Your task to perform on an android device: Go to eBay Image 0: 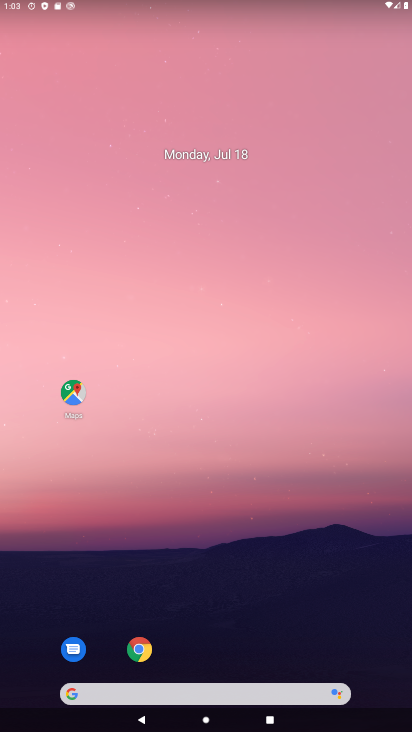
Step 0: drag from (202, 671) to (261, 50)
Your task to perform on an android device: Go to eBay Image 1: 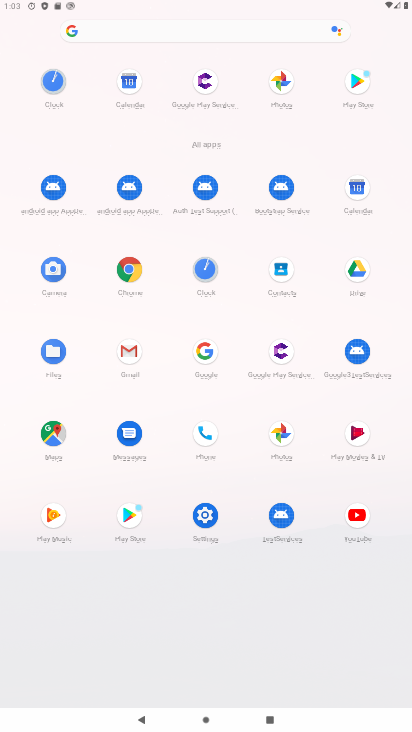
Step 1: click (127, 278)
Your task to perform on an android device: Go to eBay Image 2: 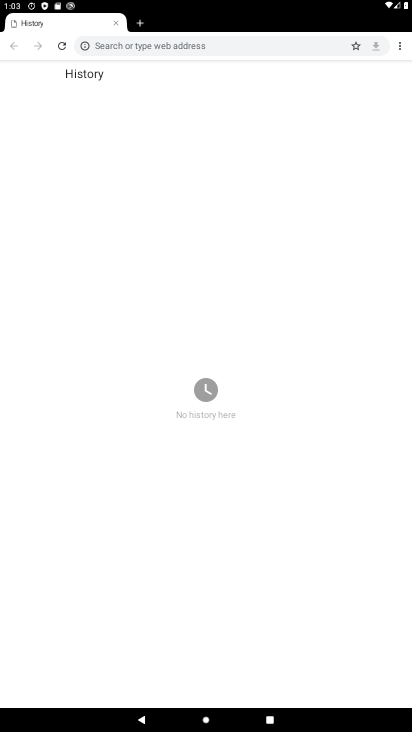
Step 2: click (138, 23)
Your task to perform on an android device: Go to eBay Image 3: 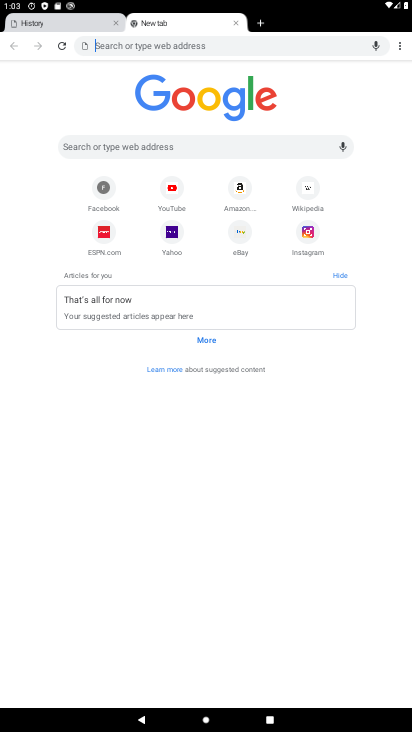
Step 3: click (246, 244)
Your task to perform on an android device: Go to eBay Image 4: 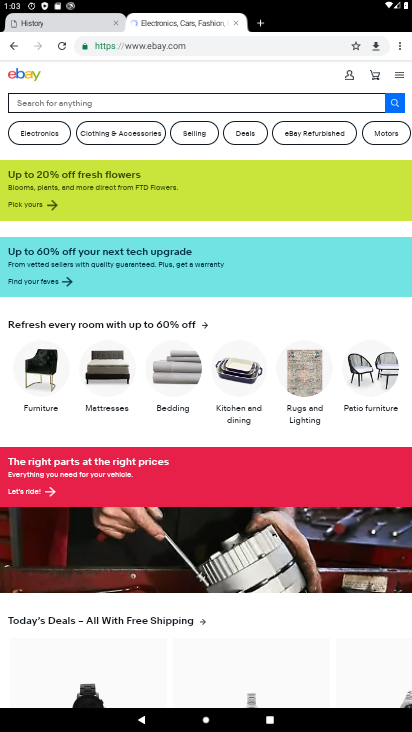
Step 4: task complete